Your task to perform on an android device: snooze an email in the gmail app Image 0: 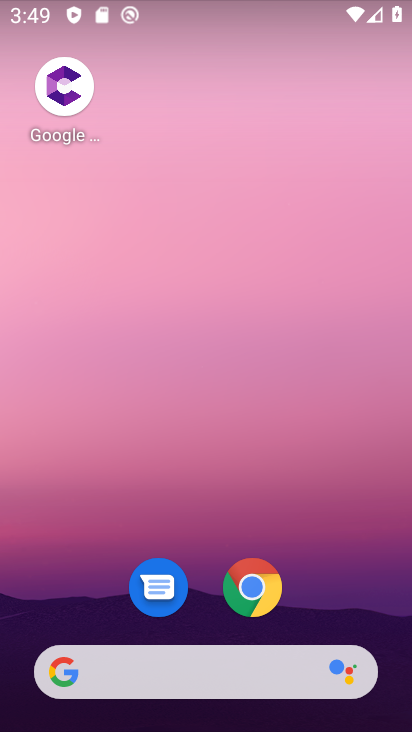
Step 0: drag from (321, 559) to (257, 87)
Your task to perform on an android device: snooze an email in the gmail app Image 1: 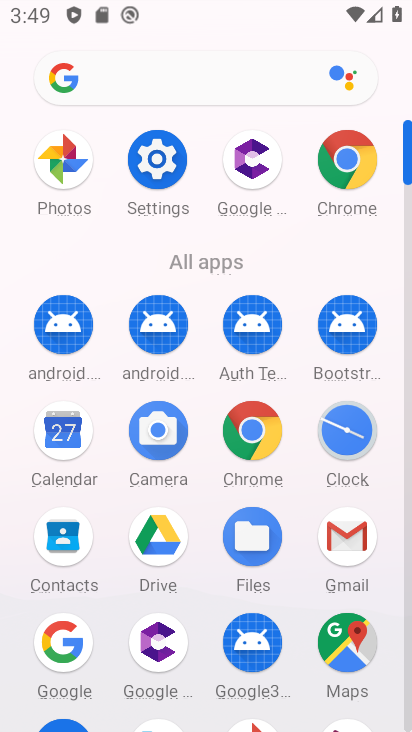
Step 1: drag from (9, 541) to (8, 260)
Your task to perform on an android device: snooze an email in the gmail app Image 2: 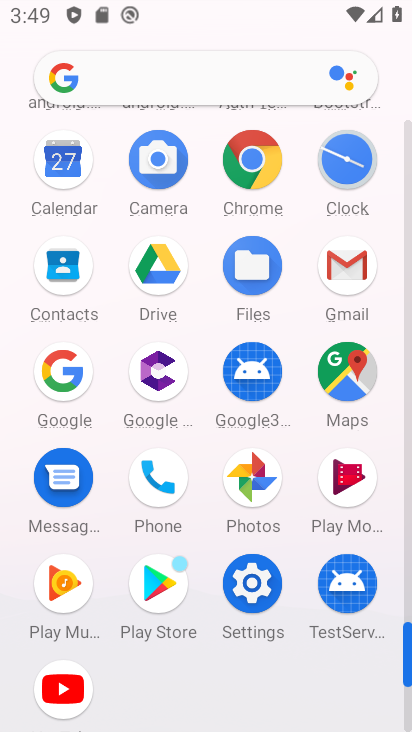
Step 2: click (347, 263)
Your task to perform on an android device: snooze an email in the gmail app Image 3: 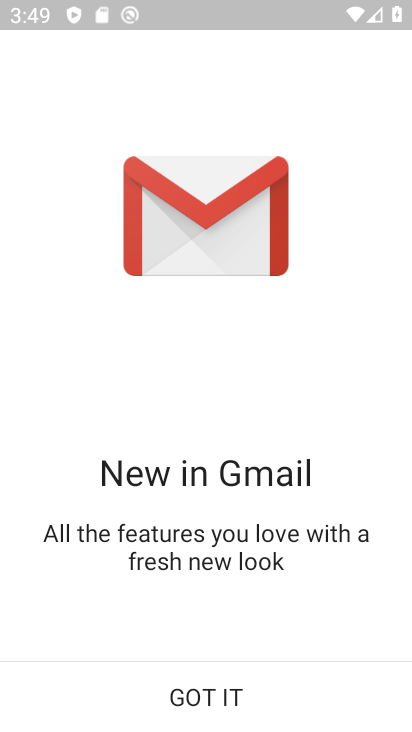
Step 3: click (199, 685)
Your task to perform on an android device: snooze an email in the gmail app Image 4: 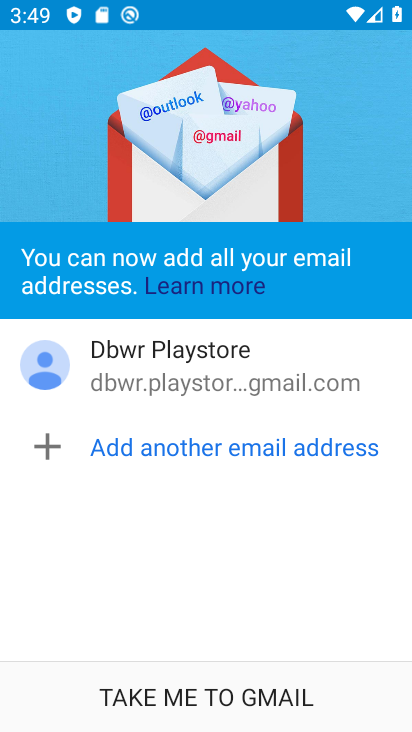
Step 4: click (184, 682)
Your task to perform on an android device: snooze an email in the gmail app Image 5: 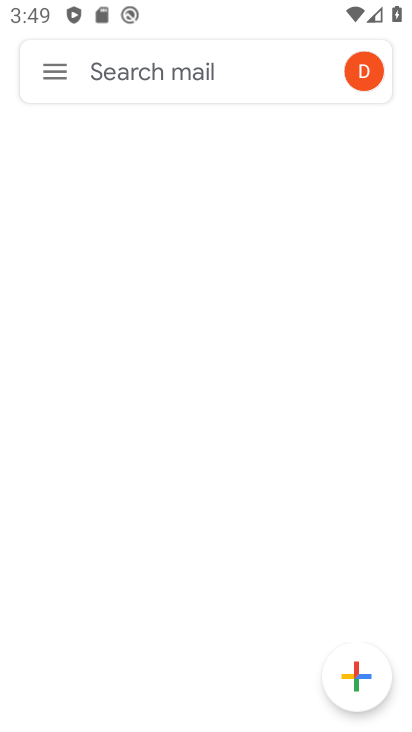
Step 5: click (56, 74)
Your task to perform on an android device: snooze an email in the gmail app Image 6: 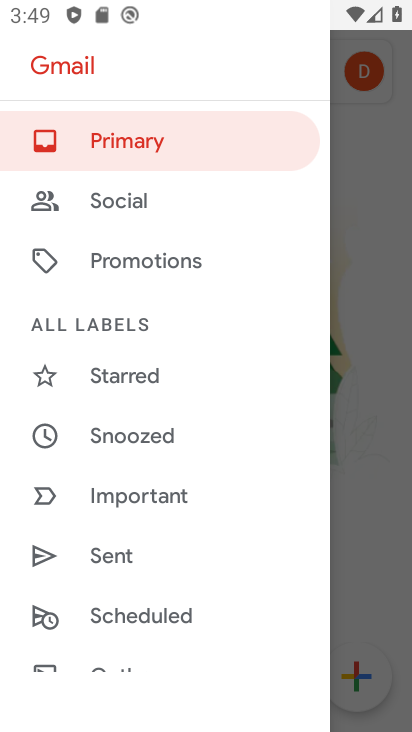
Step 6: drag from (149, 600) to (175, 232)
Your task to perform on an android device: snooze an email in the gmail app Image 7: 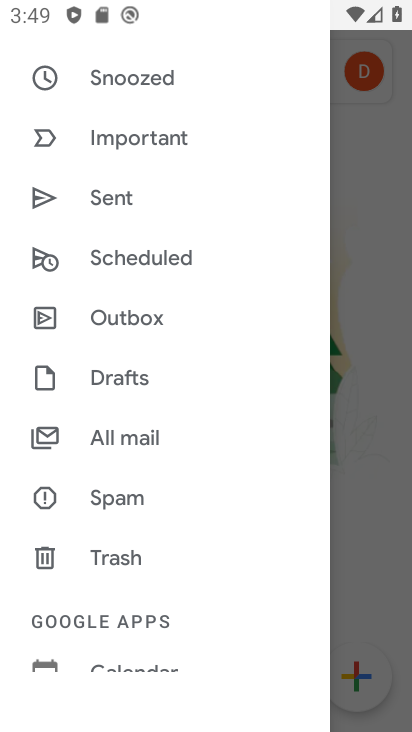
Step 7: drag from (143, 563) to (172, 128)
Your task to perform on an android device: snooze an email in the gmail app Image 8: 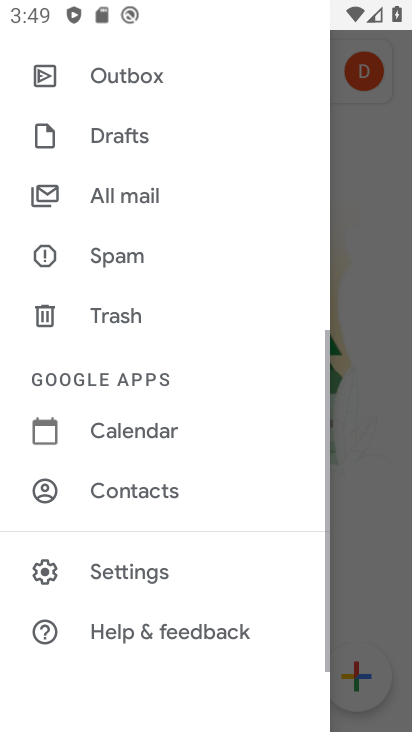
Step 8: drag from (159, 230) to (121, 566)
Your task to perform on an android device: snooze an email in the gmail app Image 9: 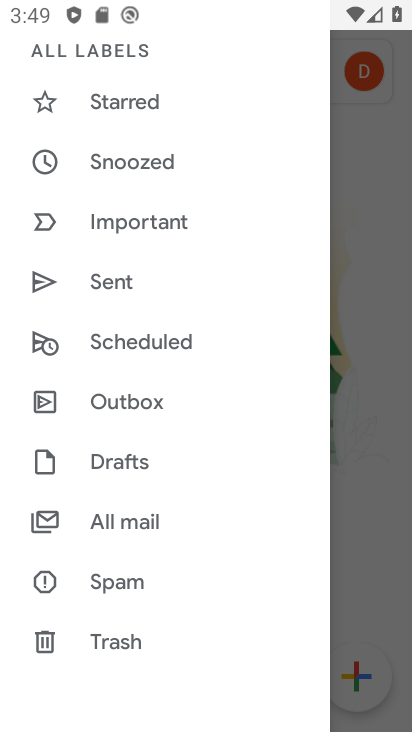
Step 9: click (151, 165)
Your task to perform on an android device: snooze an email in the gmail app Image 10: 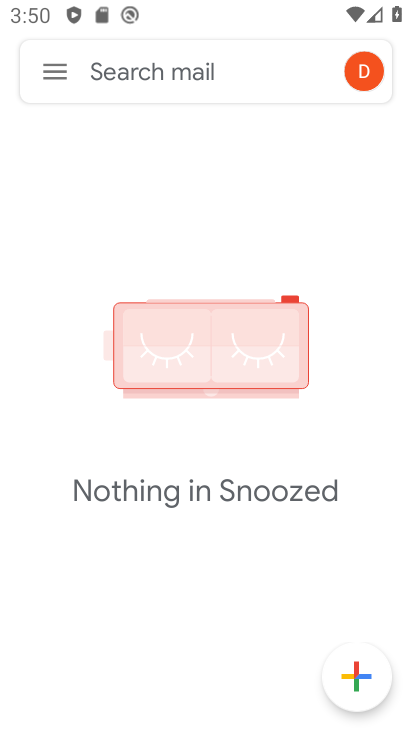
Step 10: click (49, 62)
Your task to perform on an android device: snooze an email in the gmail app Image 11: 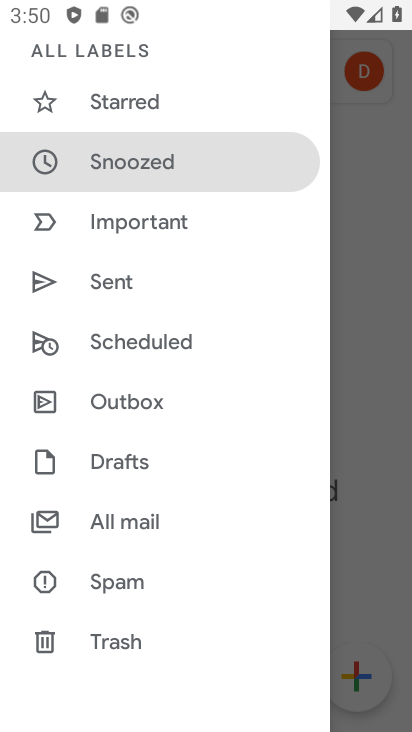
Step 11: click (154, 163)
Your task to perform on an android device: snooze an email in the gmail app Image 12: 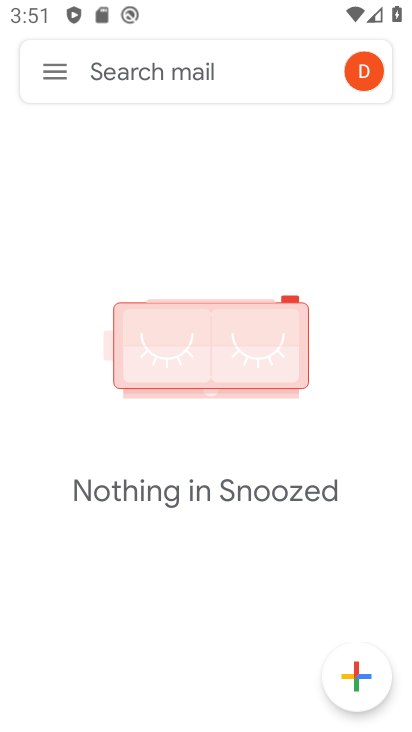
Step 12: click (63, 66)
Your task to perform on an android device: snooze an email in the gmail app Image 13: 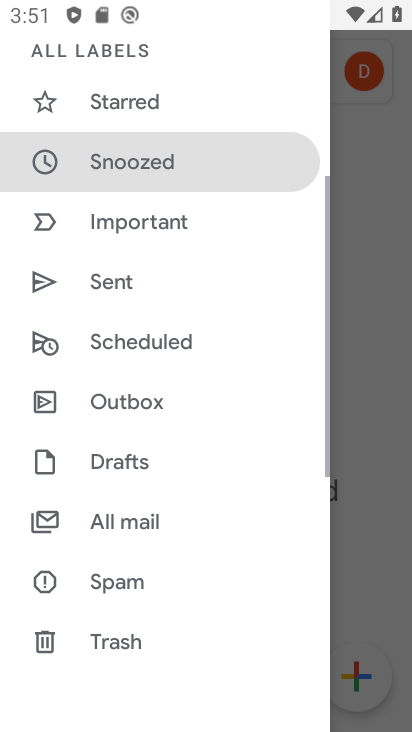
Step 13: click (135, 170)
Your task to perform on an android device: snooze an email in the gmail app Image 14: 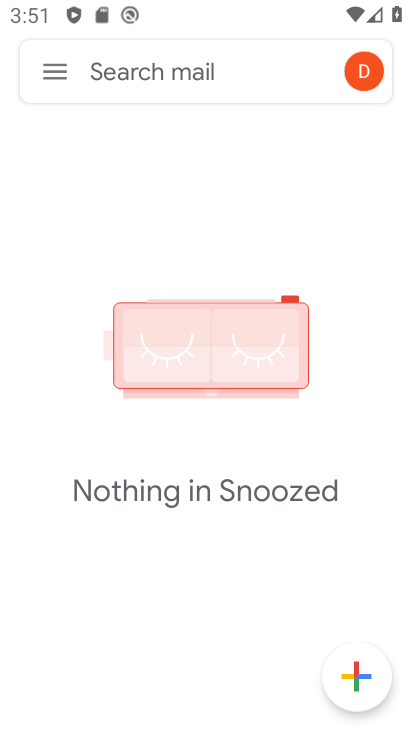
Step 14: task complete